Your task to perform on an android device: Go to Yahoo.com Image 0: 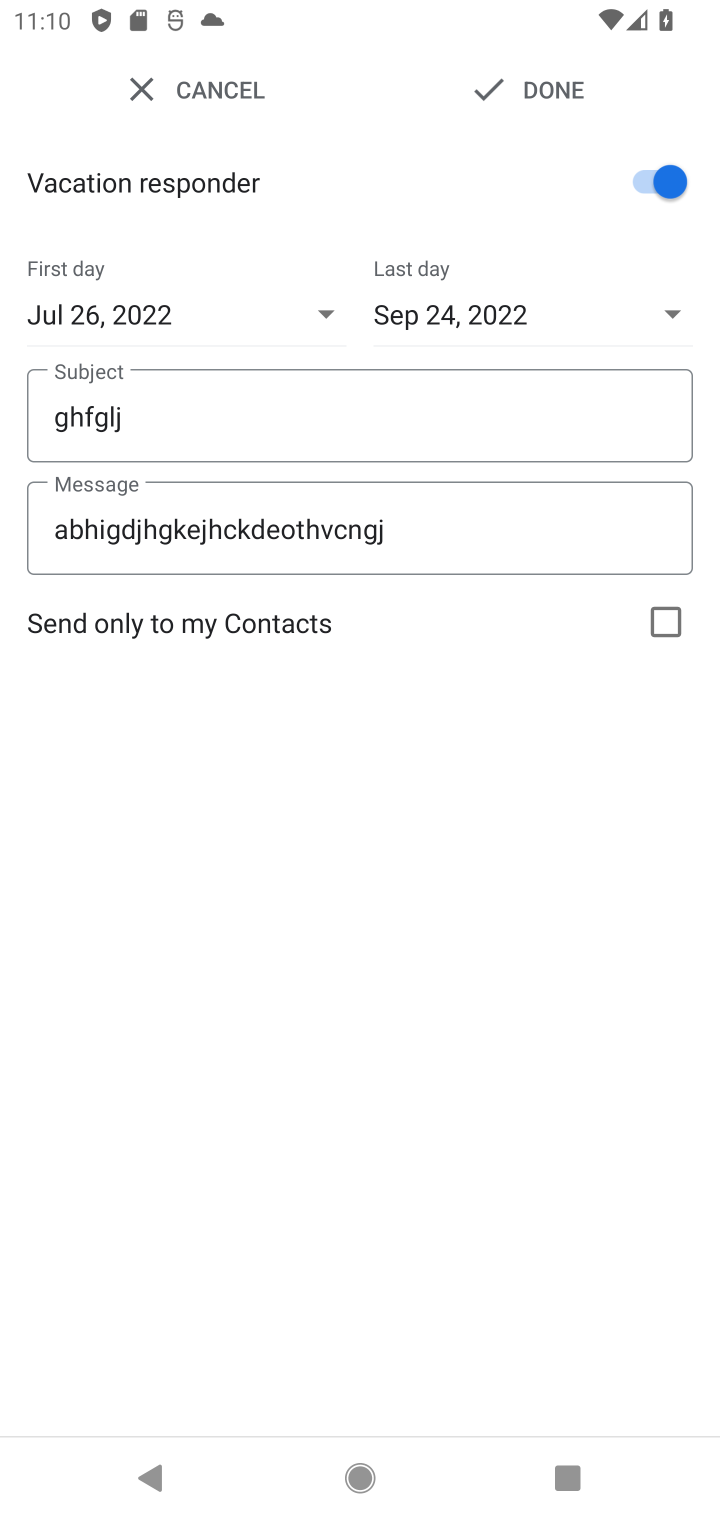
Step 0: press home button
Your task to perform on an android device: Go to Yahoo.com Image 1: 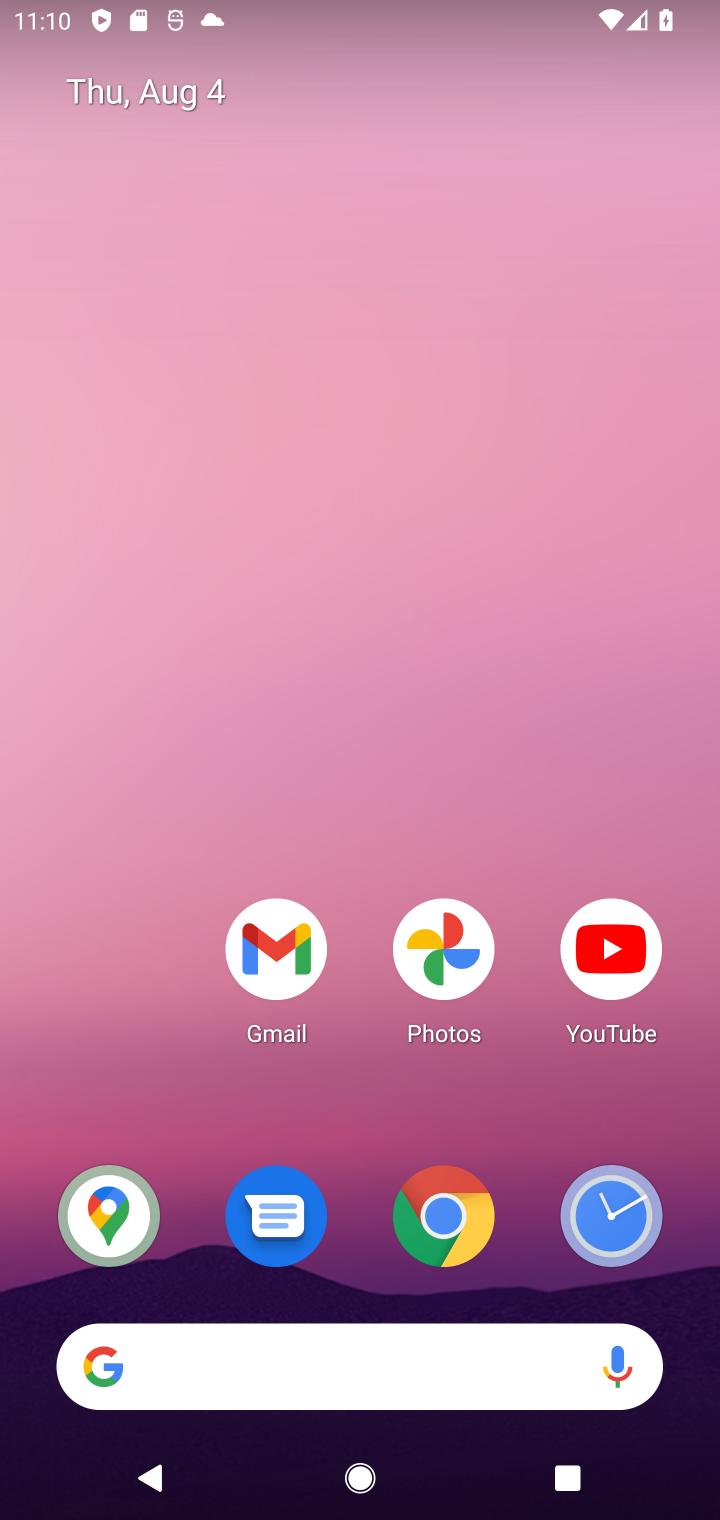
Step 1: click (443, 1219)
Your task to perform on an android device: Go to Yahoo.com Image 2: 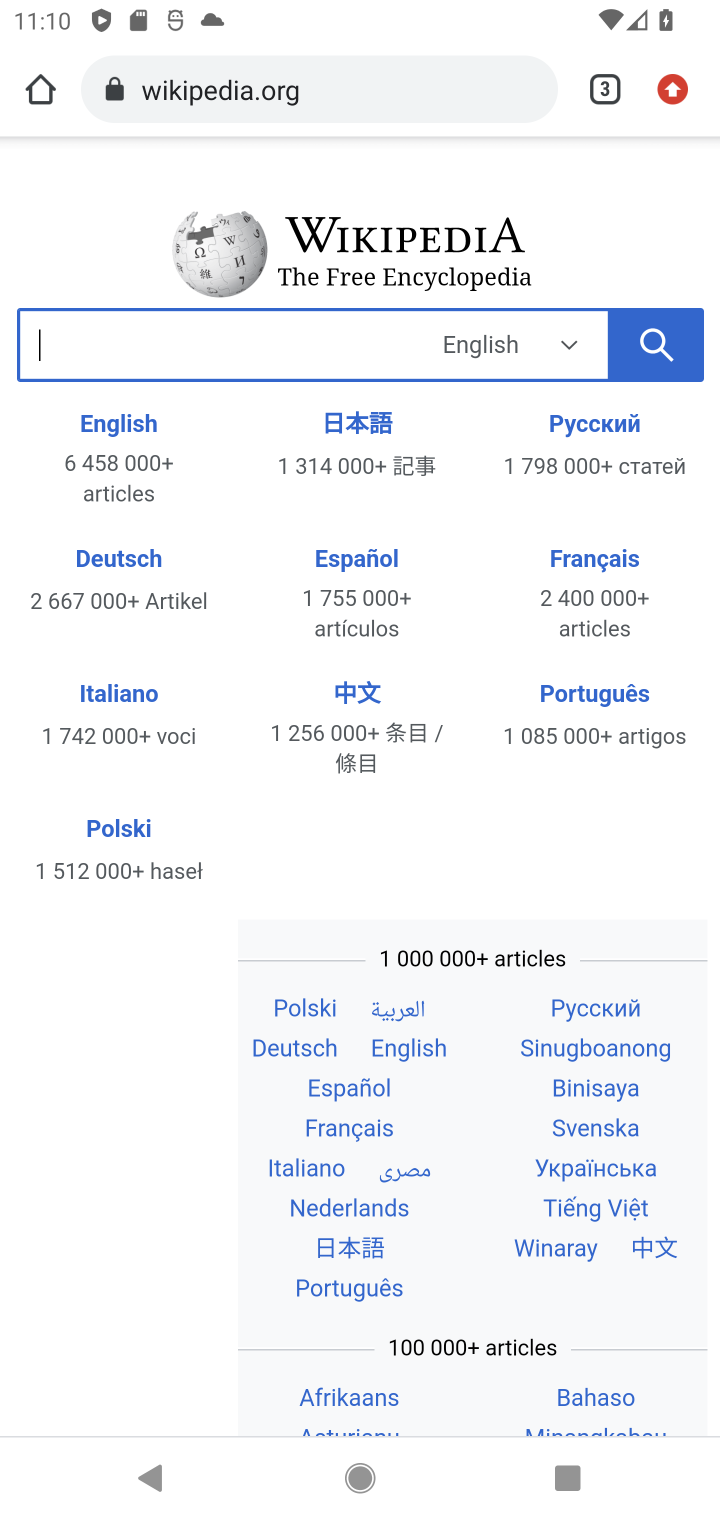
Step 2: click (375, 99)
Your task to perform on an android device: Go to Yahoo.com Image 3: 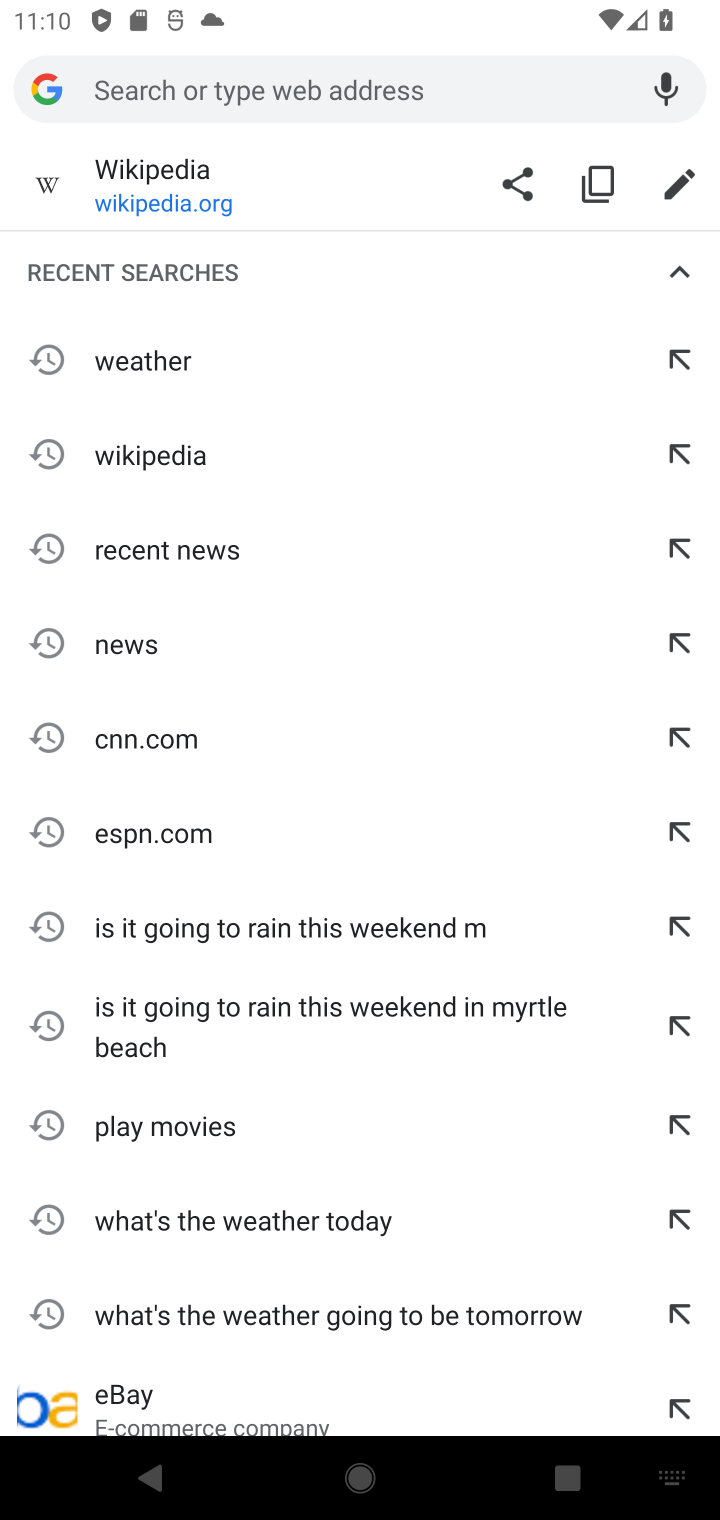
Step 3: type "Yahoo.com"
Your task to perform on an android device: Go to Yahoo.com Image 4: 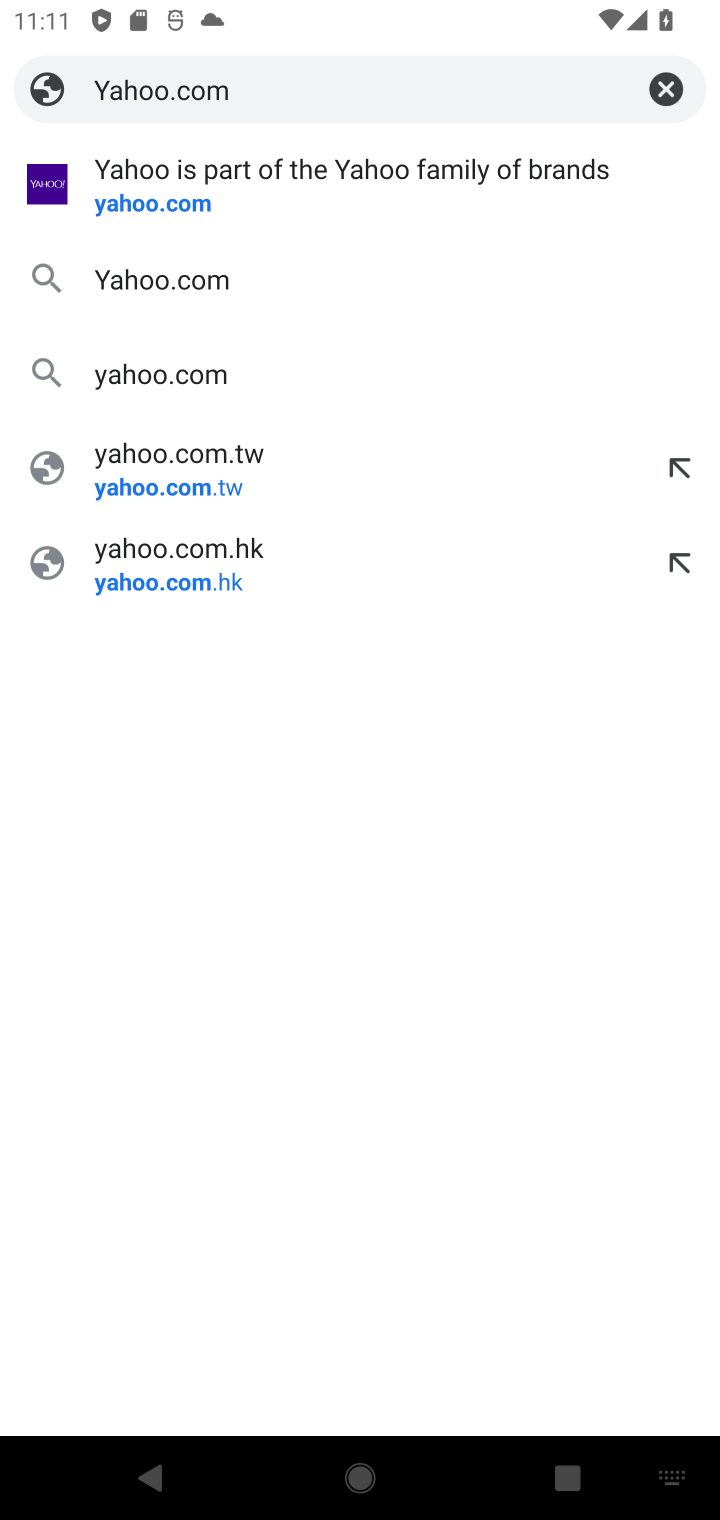
Step 4: click (173, 272)
Your task to perform on an android device: Go to Yahoo.com Image 5: 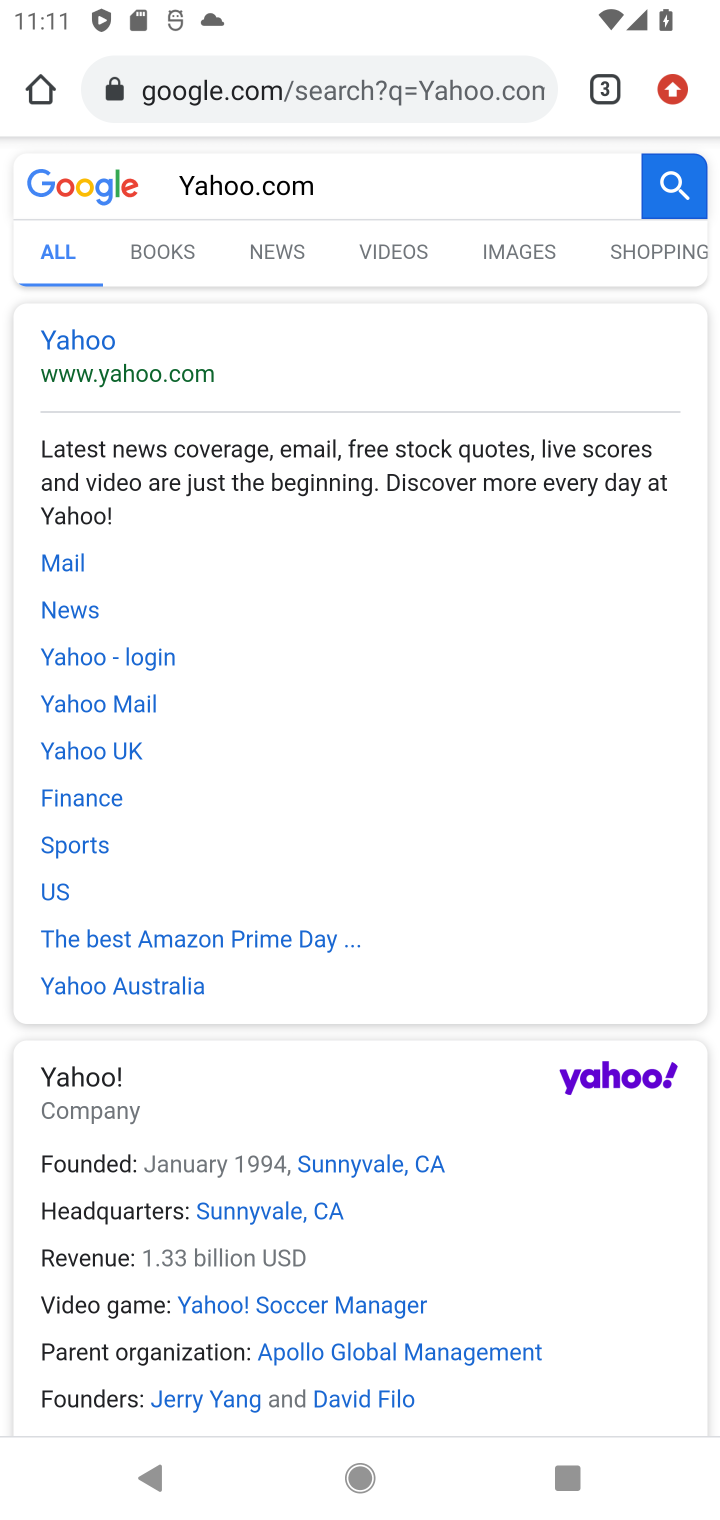
Step 5: click (95, 370)
Your task to perform on an android device: Go to Yahoo.com Image 6: 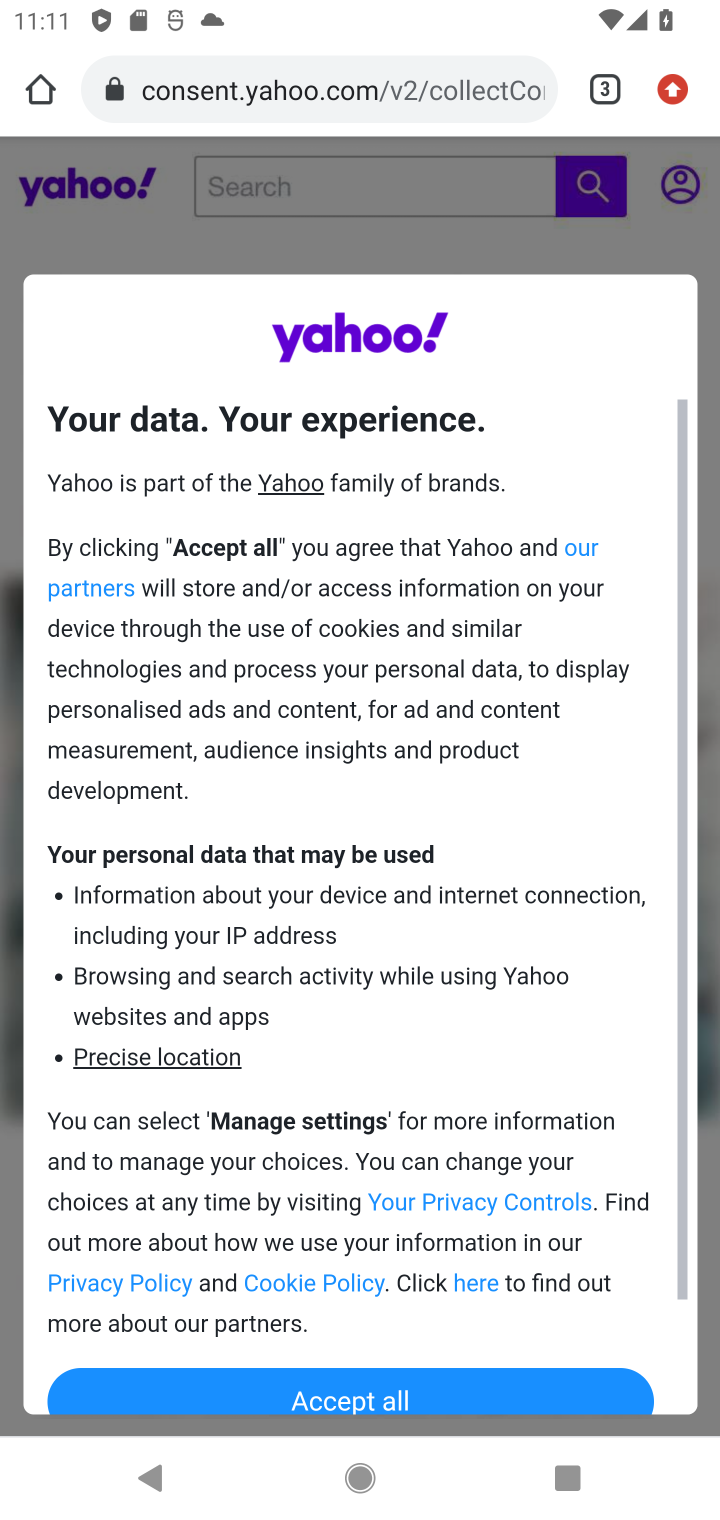
Step 6: drag from (347, 1104) to (504, 800)
Your task to perform on an android device: Go to Yahoo.com Image 7: 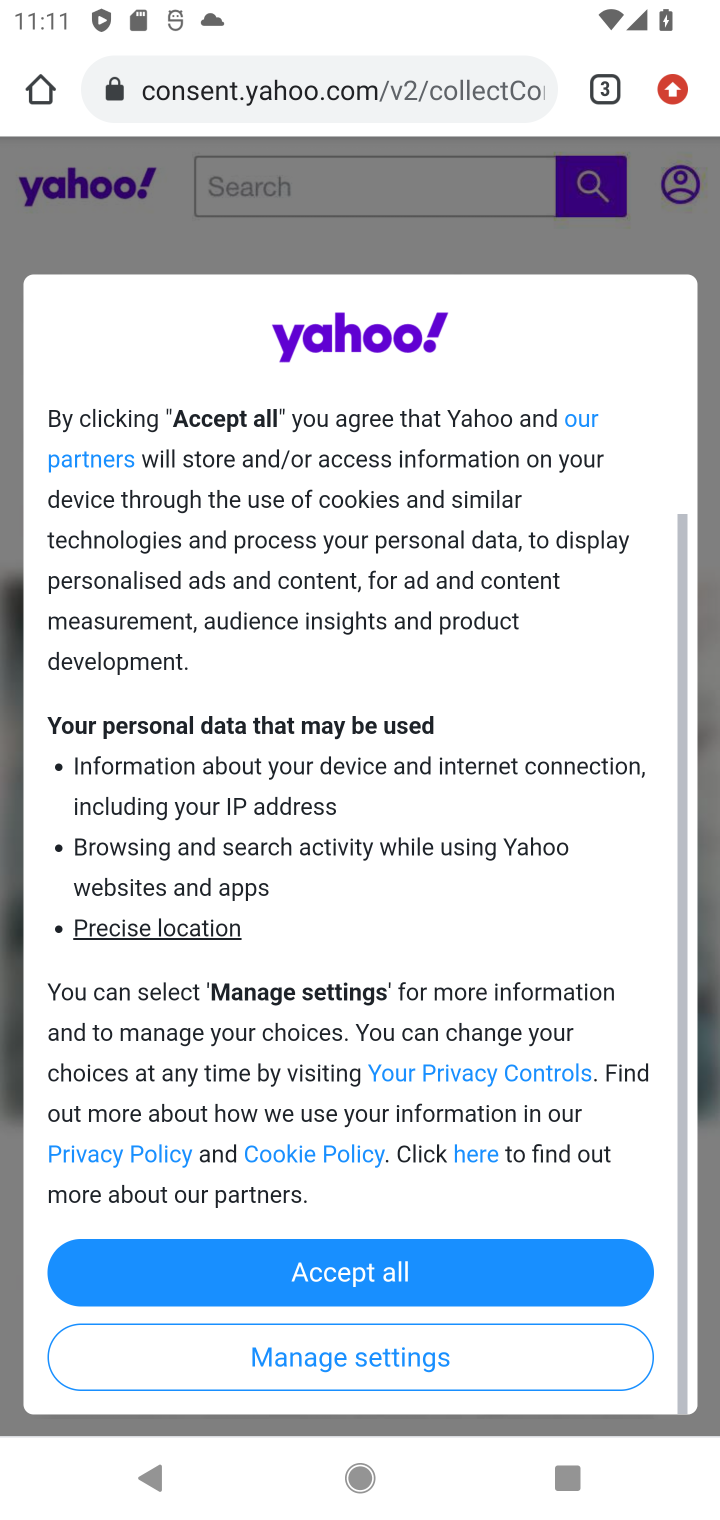
Step 7: click (373, 1267)
Your task to perform on an android device: Go to Yahoo.com Image 8: 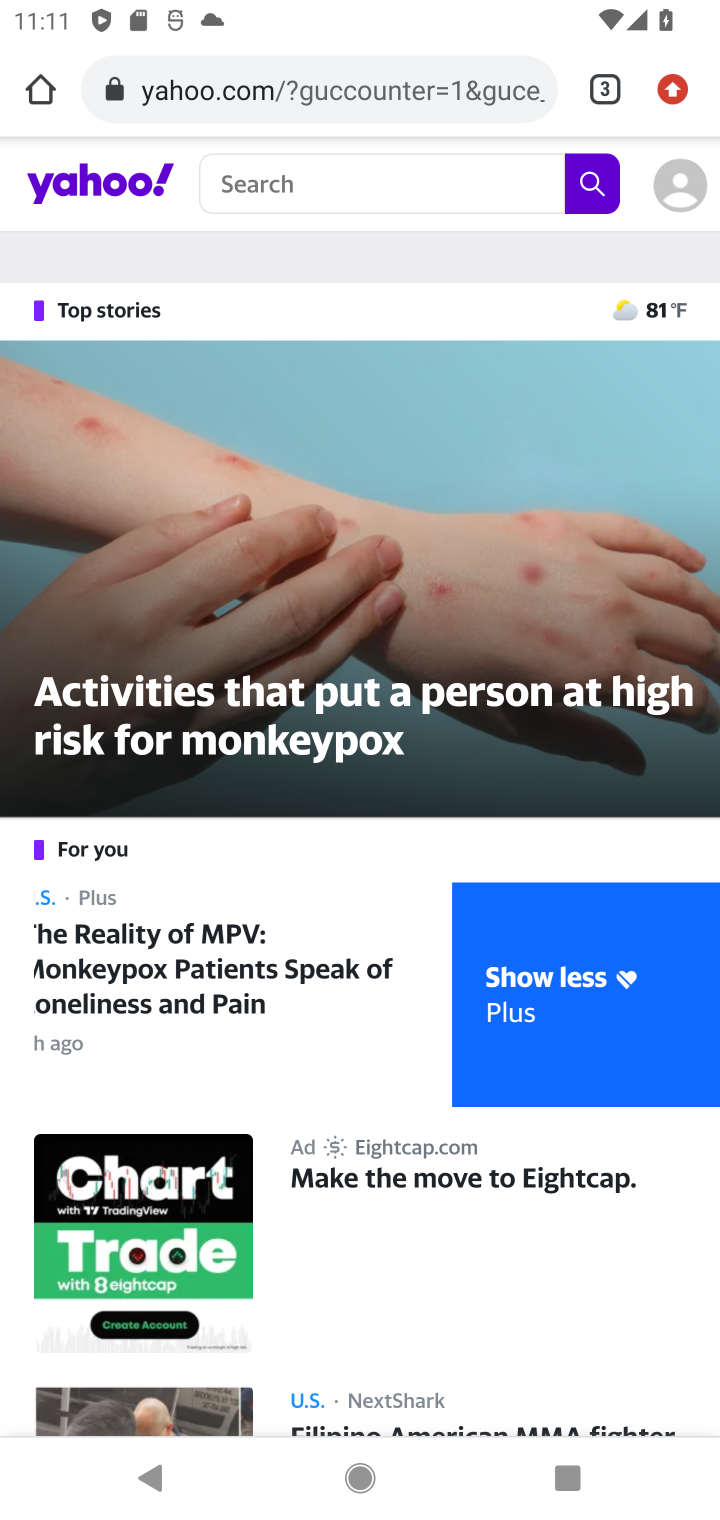
Step 8: task complete